Your task to perform on an android device: open wifi settings Image 0: 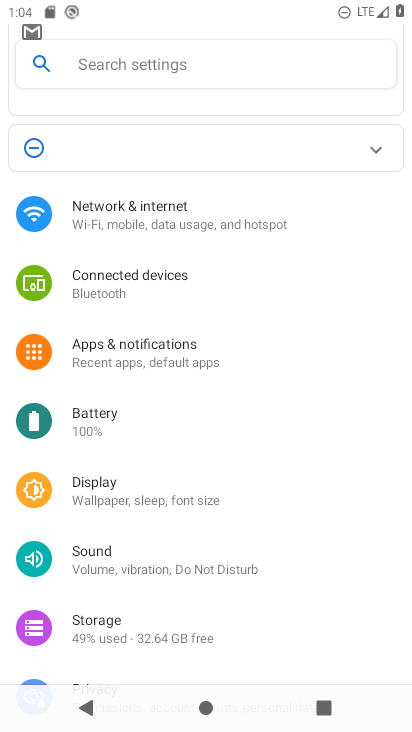
Step 0: click (195, 209)
Your task to perform on an android device: open wifi settings Image 1: 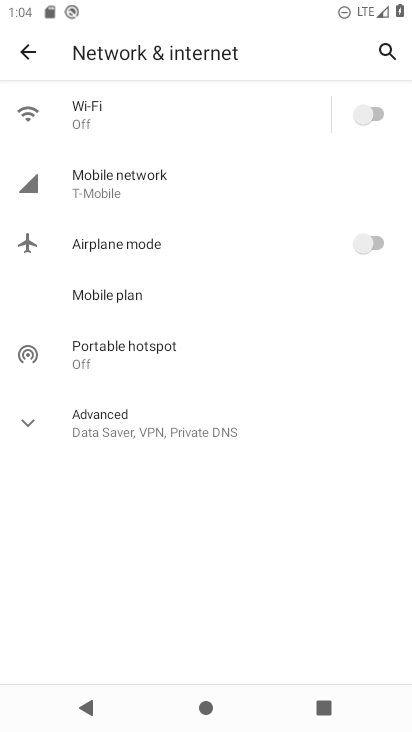
Step 1: click (152, 117)
Your task to perform on an android device: open wifi settings Image 2: 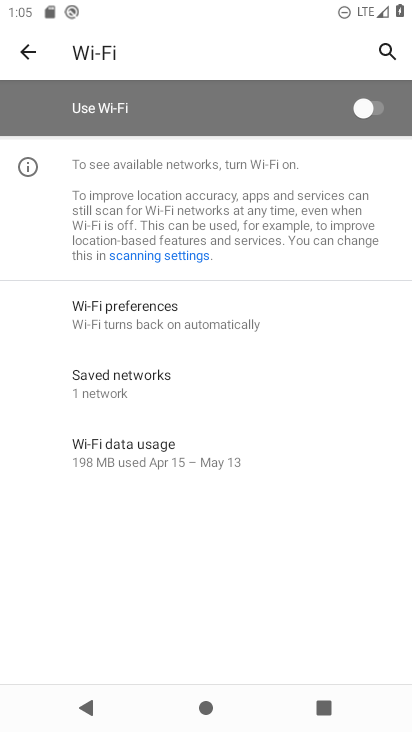
Step 2: click (374, 103)
Your task to perform on an android device: open wifi settings Image 3: 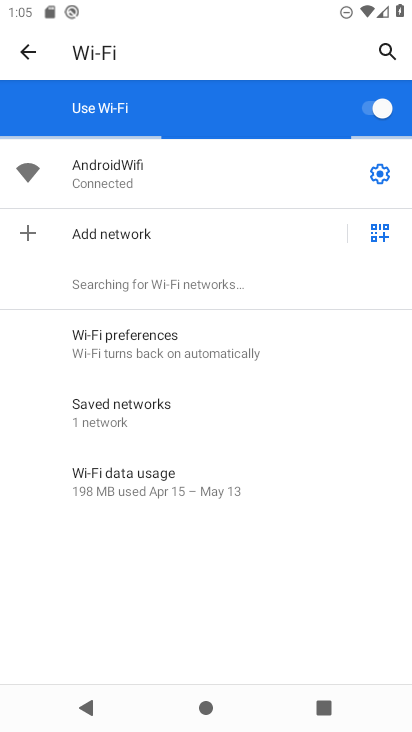
Step 3: task complete